Your task to perform on an android device: turn pop-ups on in chrome Image 0: 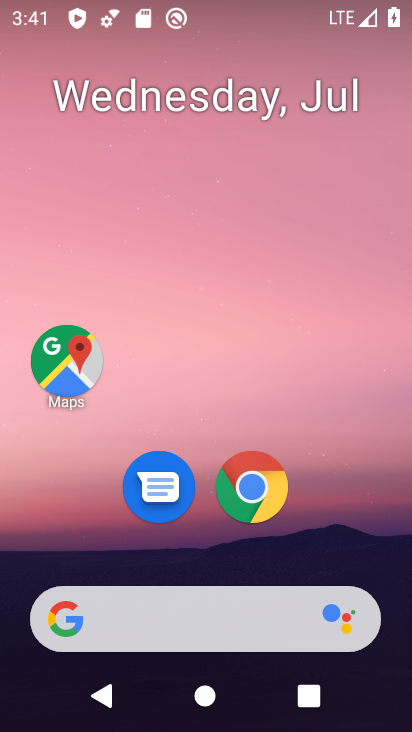
Step 0: drag from (190, 623) to (277, 198)
Your task to perform on an android device: turn pop-ups on in chrome Image 1: 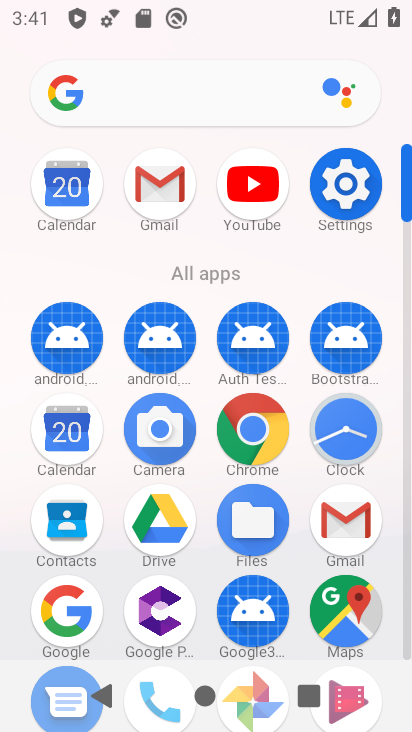
Step 1: click (255, 439)
Your task to perform on an android device: turn pop-ups on in chrome Image 2: 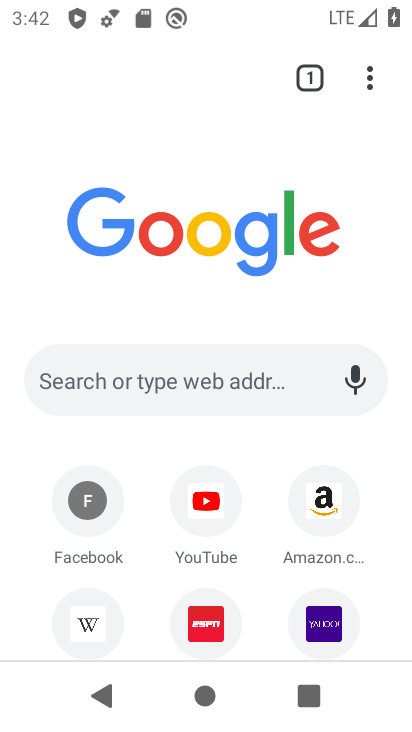
Step 2: click (360, 80)
Your task to perform on an android device: turn pop-ups on in chrome Image 3: 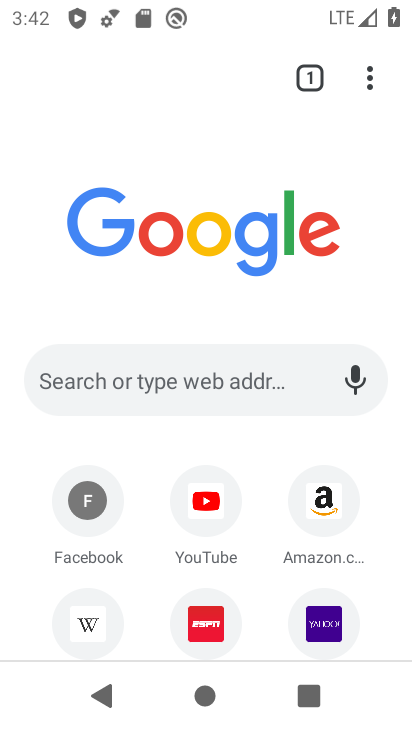
Step 3: click (371, 95)
Your task to perform on an android device: turn pop-ups on in chrome Image 4: 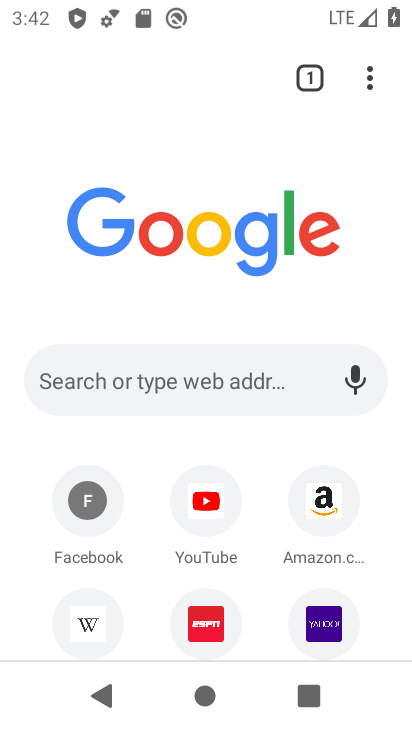
Step 4: click (368, 83)
Your task to perform on an android device: turn pop-ups on in chrome Image 5: 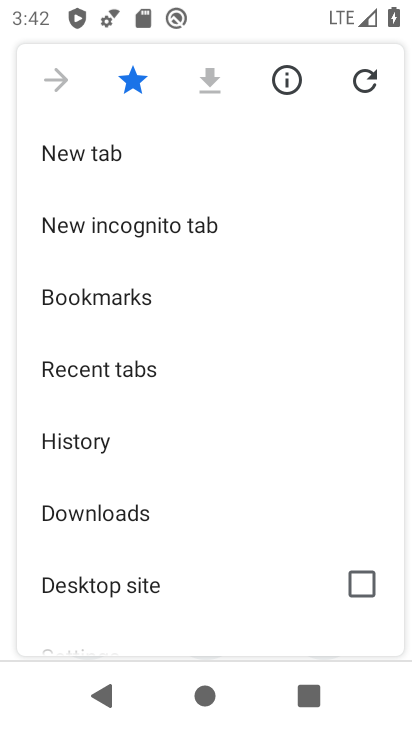
Step 5: drag from (252, 528) to (251, 237)
Your task to perform on an android device: turn pop-ups on in chrome Image 6: 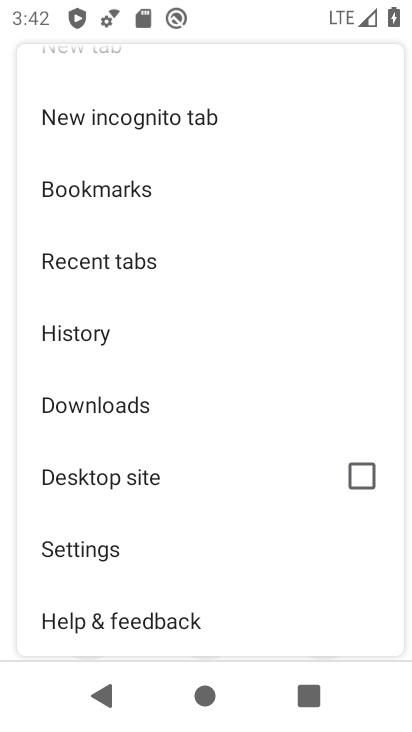
Step 6: click (109, 554)
Your task to perform on an android device: turn pop-ups on in chrome Image 7: 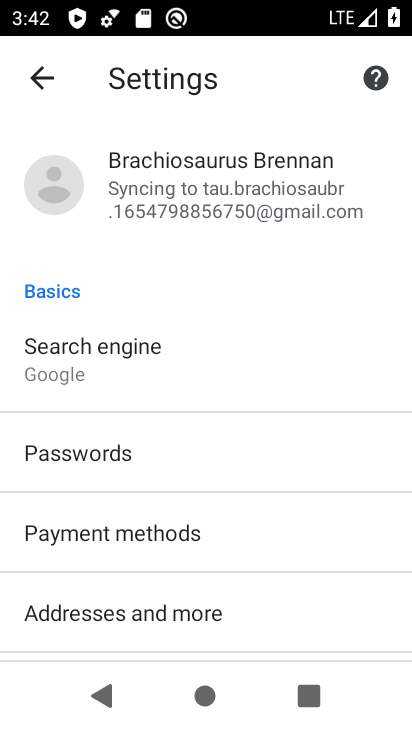
Step 7: drag from (166, 549) to (175, 147)
Your task to perform on an android device: turn pop-ups on in chrome Image 8: 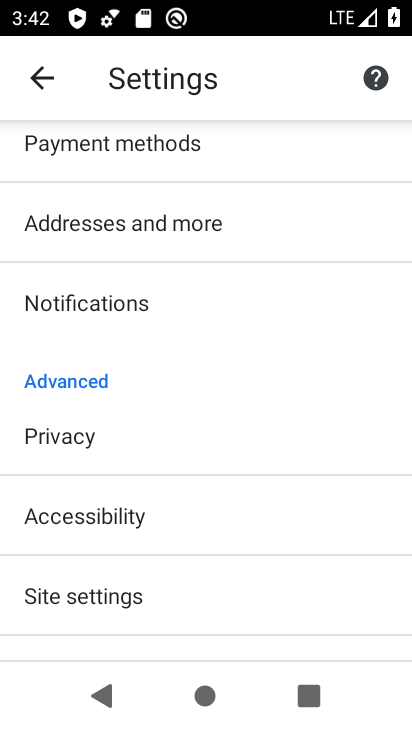
Step 8: click (103, 598)
Your task to perform on an android device: turn pop-ups on in chrome Image 9: 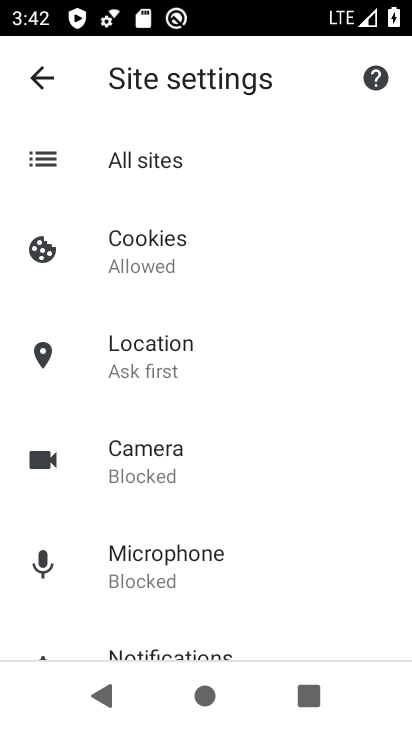
Step 9: drag from (165, 432) to (192, 131)
Your task to perform on an android device: turn pop-ups on in chrome Image 10: 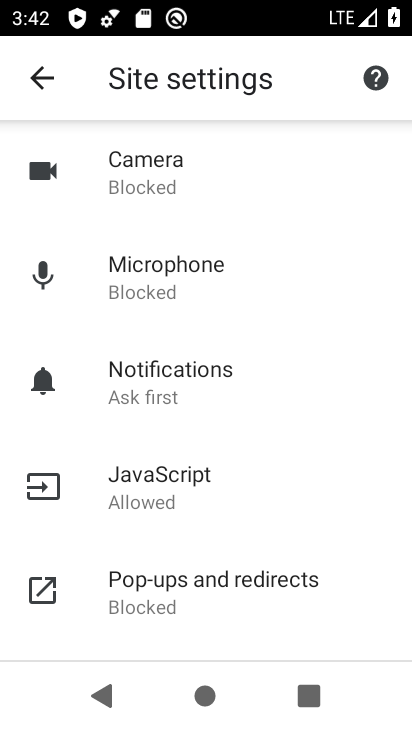
Step 10: click (234, 590)
Your task to perform on an android device: turn pop-ups on in chrome Image 11: 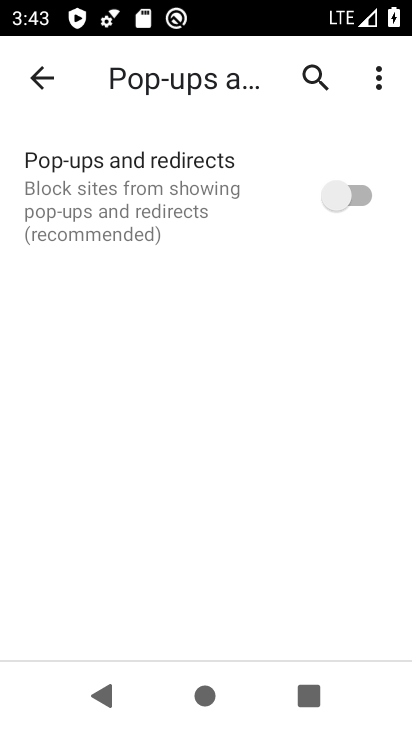
Step 11: click (363, 195)
Your task to perform on an android device: turn pop-ups on in chrome Image 12: 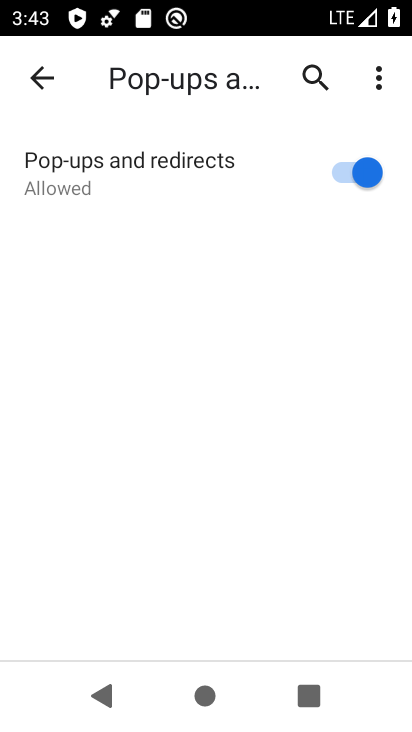
Step 12: task complete